Your task to perform on an android device: snooze an email in the gmail app Image 0: 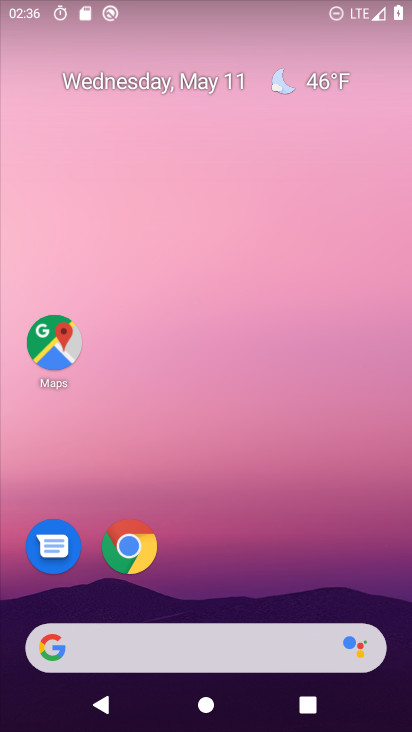
Step 0: drag from (287, 665) to (218, 133)
Your task to perform on an android device: snooze an email in the gmail app Image 1: 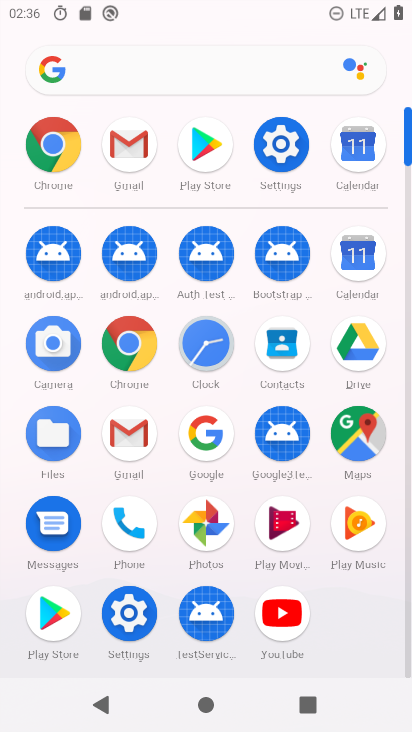
Step 1: click (120, 427)
Your task to perform on an android device: snooze an email in the gmail app Image 2: 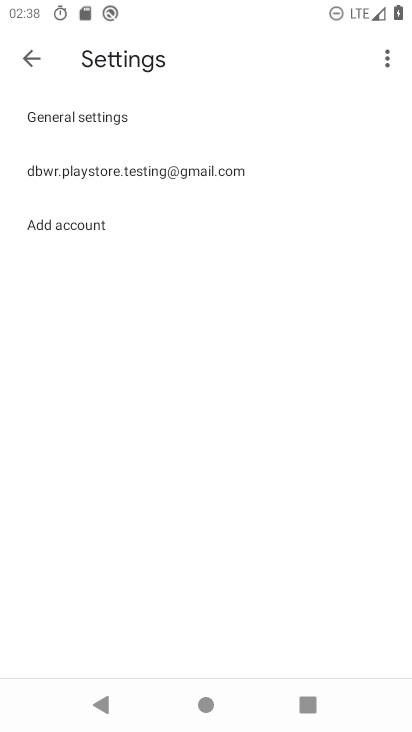
Step 2: click (23, 63)
Your task to perform on an android device: snooze an email in the gmail app Image 3: 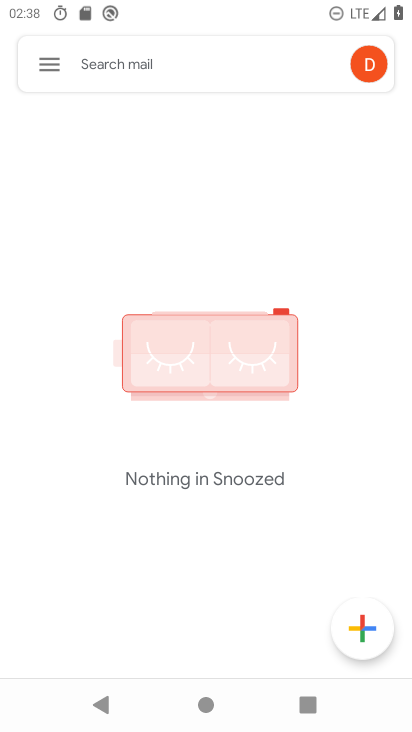
Step 3: click (42, 59)
Your task to perform on an android device: snooze an email in the gmail app Image 4: 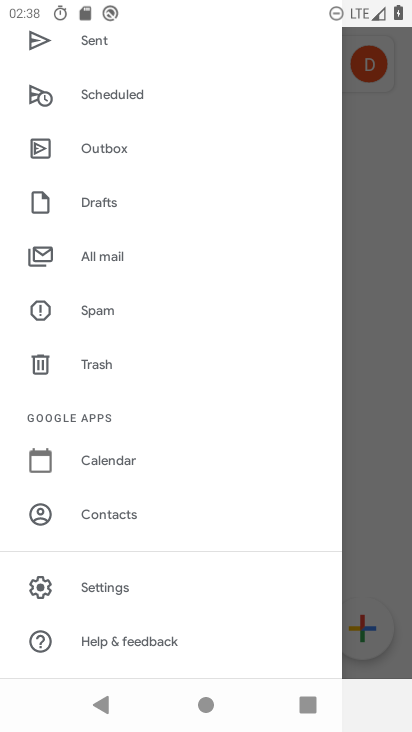
Step 4: drag from (127, 144) to (173, 276)
Your task to perform on an android device: snooze an email in the gmail app Image 5: 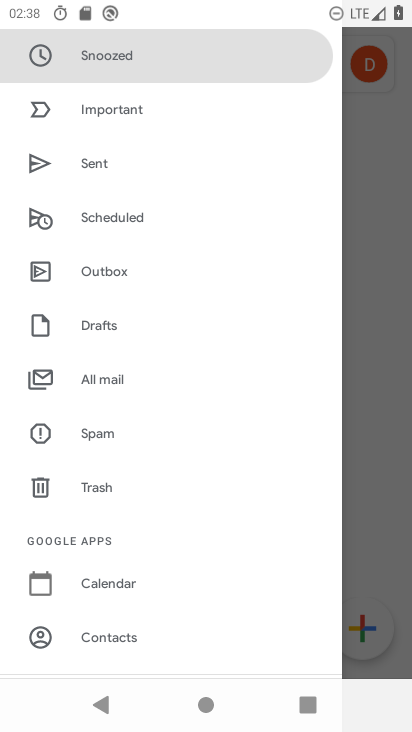
Step 5: click (141, 68)
Your task to perform on an android device: snooze an email in the gmail app Image 6: 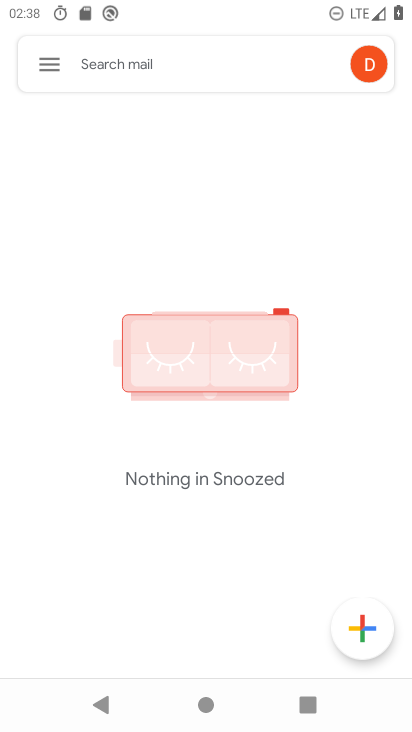
Step 6: task complete